Your task to perform on an android device: toggle javascript in the chrome app Image 0: 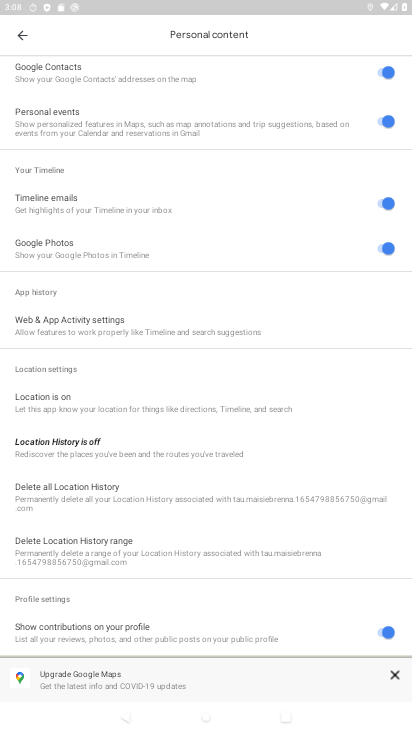
Step 0: press home button
Your task to perform on an android device: toggle javascript in the chrome app Image 1: 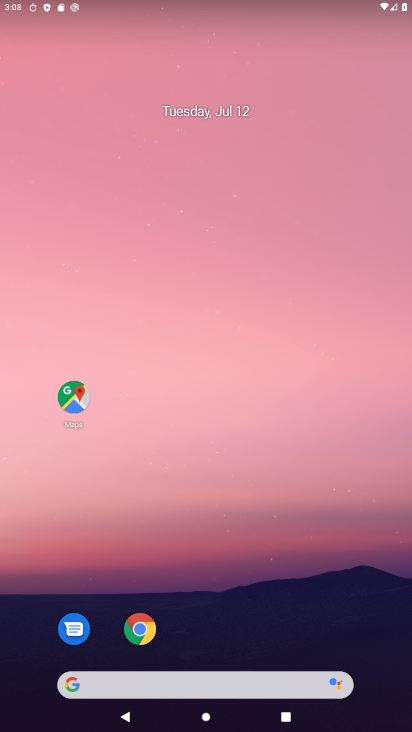
Step 1: drag from (280, 657) to (297, 68)
Your task to perform on an android device: toggle javascript in the chrome app Image 2: 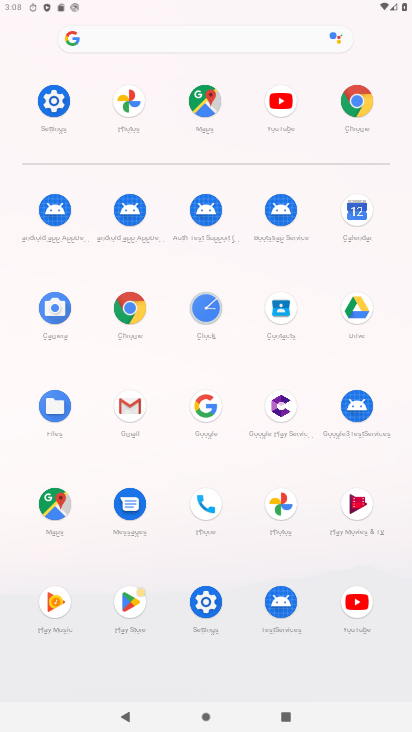
Step 2: click (278, 105)
Your task to perform on an android device: toggle javascript in the chrome app Image 3: 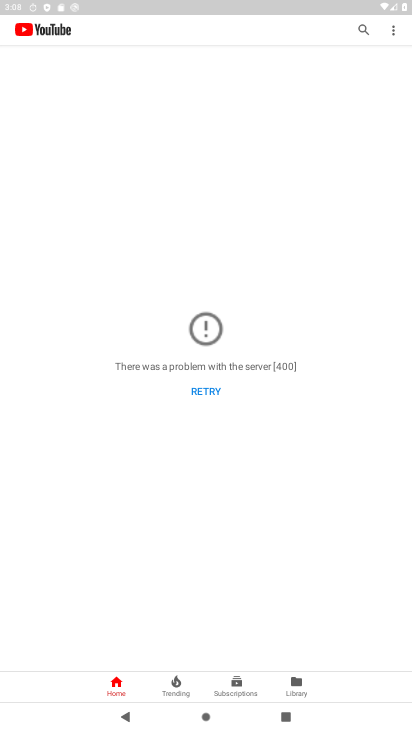
Step 3: press home button
Your task to perform on an android device: toggle javascript in the chrome app Image 4: 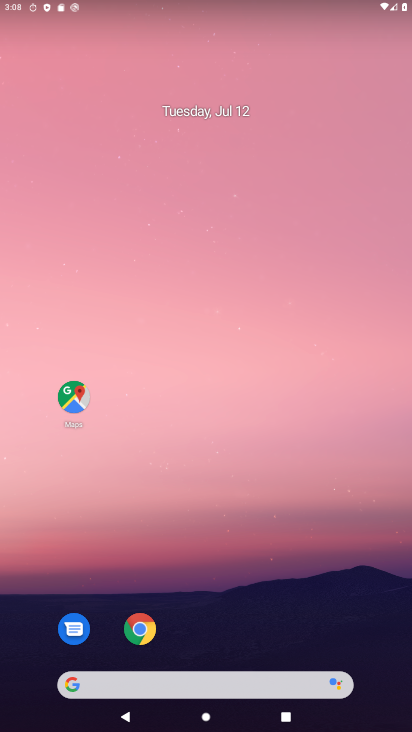
Step 4: drag from (250, 656) to (323, 89)
Your task to perform on an android device: toggle javascript in the chrome app Image 5: 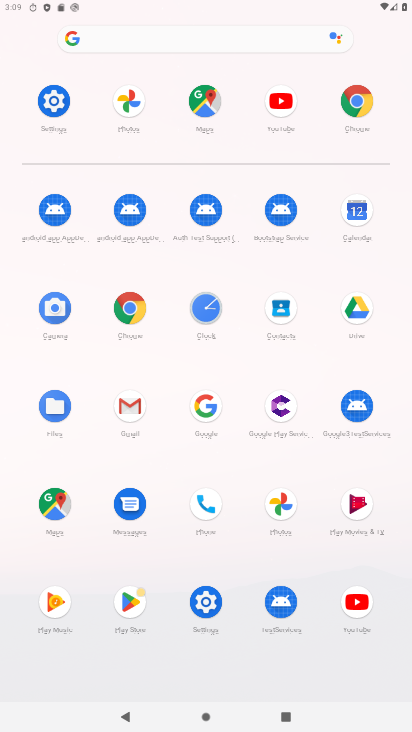
Step 5: click (354, 111)
Your task to perform on an android device: toggle javascript in the chrome app Image 6: 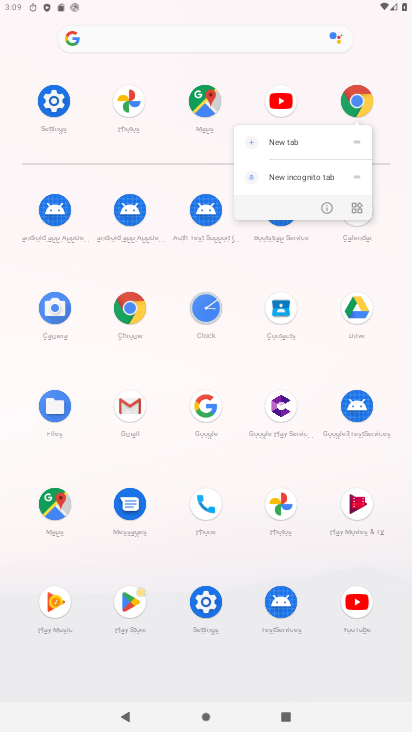
Step 6: click (364, 97)
Your task to perform on an android device: toggle javascript in the chrome app Image 7: 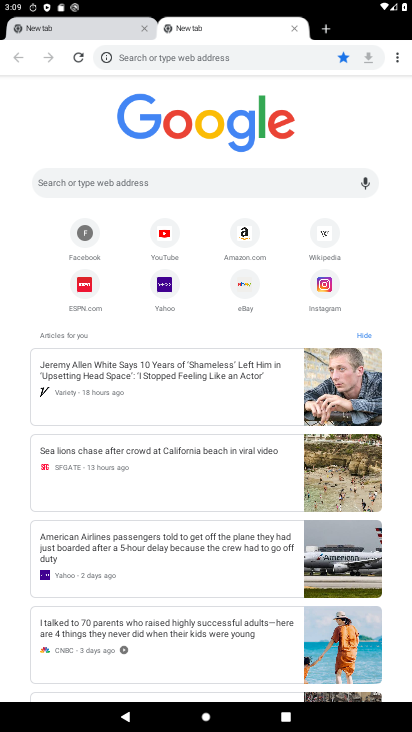
Step 7: drag from (400, 66) to (298, 261)
Your task to perform on an android device: toggle javascript in the chrome app Image 8: 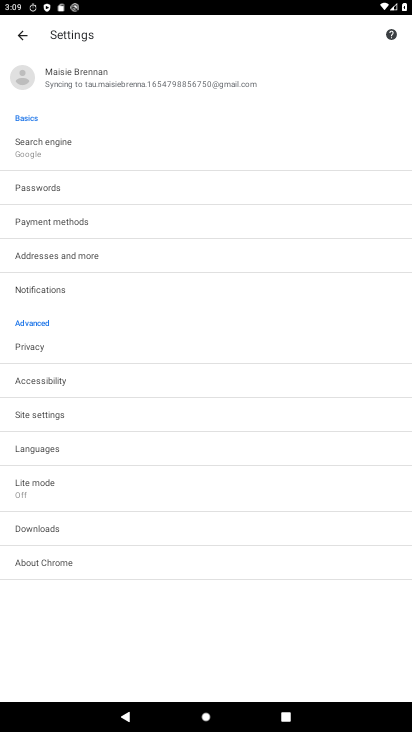
Step 8: click (52, 414)
Your task to perform on an android device: toggle javascript in the chrome app Image 9: 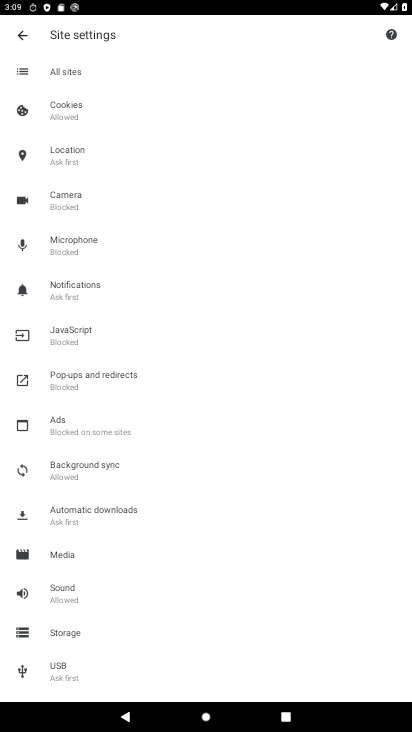
Step 9: click (63, 338)
Your task to perform on an android device: toggle javascript in the chrome app Image 10: 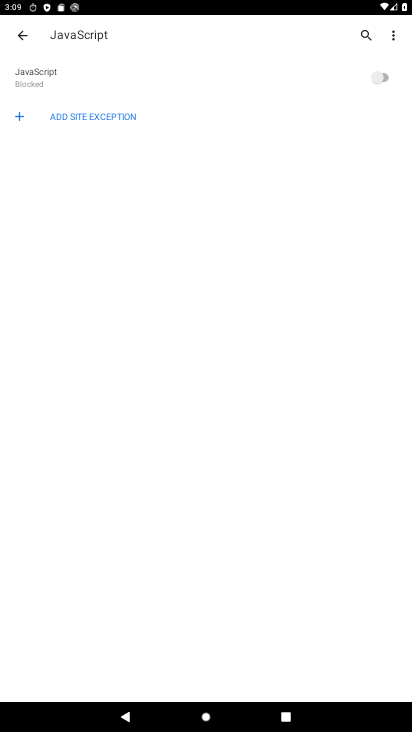
Step 10: click (66, 76)
Your task to perform on an android device: toggle javascript in the chrome app Image 11: 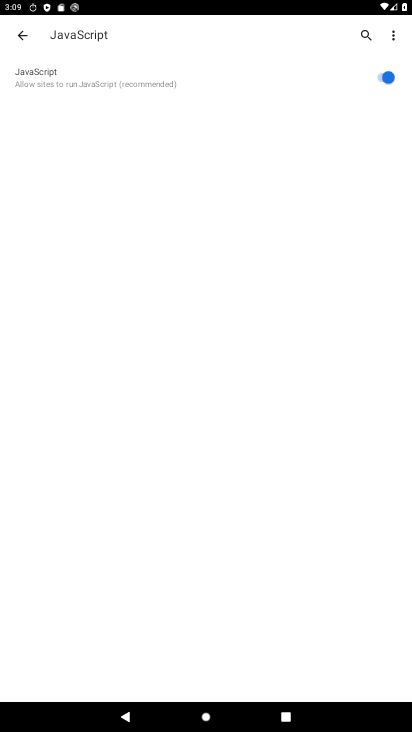
Step 11: task complete